Your task to perform on an android device: change timer sound Image 0: 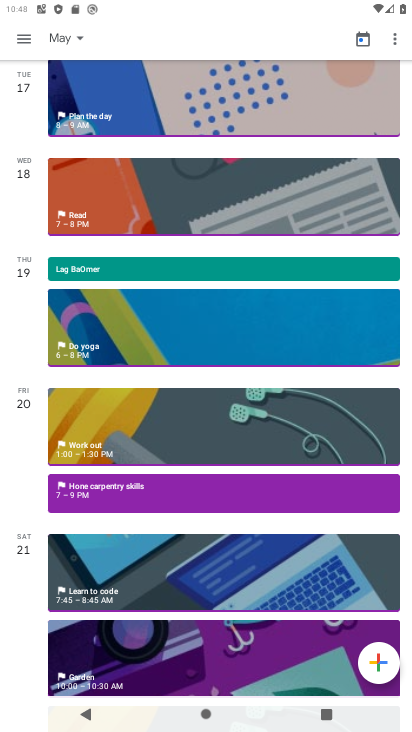
Step 0: press home button
Your task to perform on an android device: change timer sound Image 1: 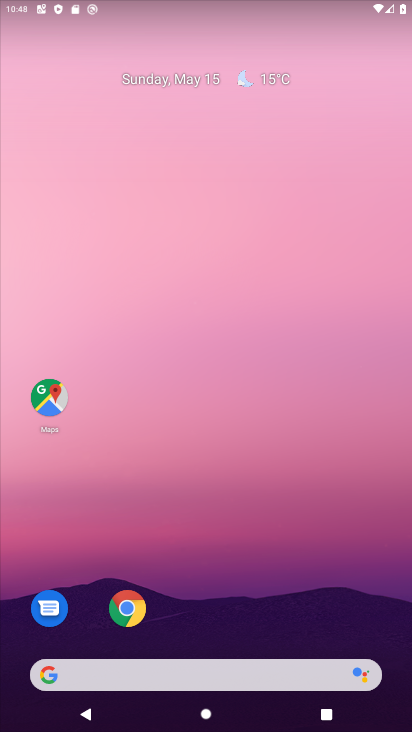
Step 1: drag from (202, 618) to (213, 167)
Your task to perform on an android device: change timer sound Image 2: 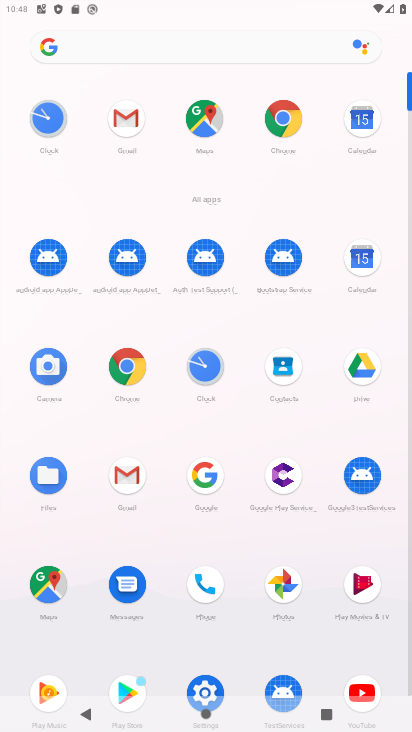
Step 2: click (209, 369)
Your task to perform on an android device: change timer sound Image 3: 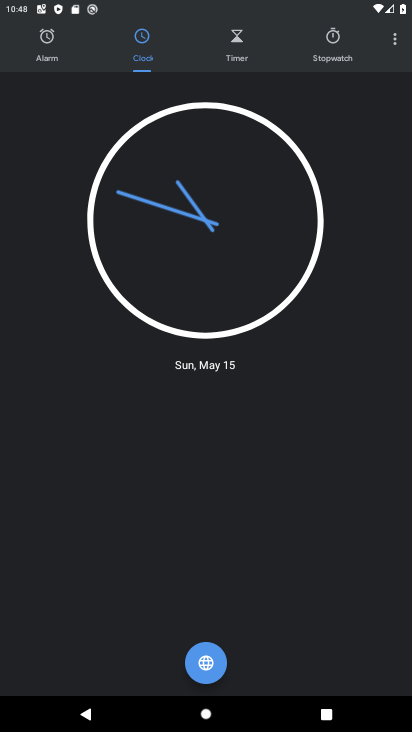
Step 3: click (398, 36)
Your task to perform on an android device: change timer sound Image 4: 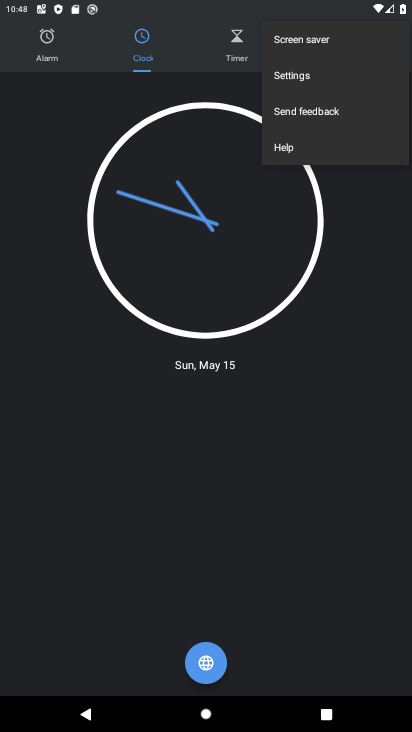
Step 4: click (337, 85)
Your task to perform on an android device: change timer sound Image 5: 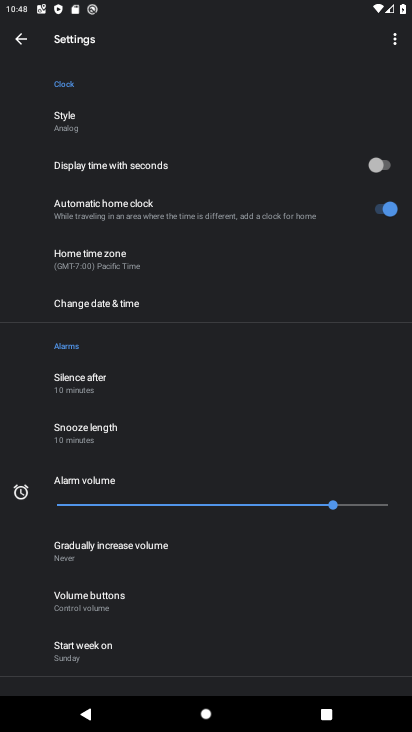
Step 5: drag from (145, 545) to (197, 156)
Your task to perform on an android device: change timer sound Image 6: 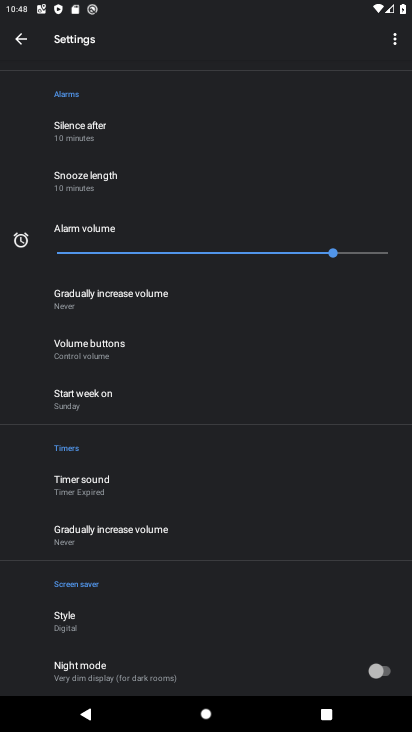
Step 6: click (70, 482)
Your task to perform on an android device: change timer sound Image 7: 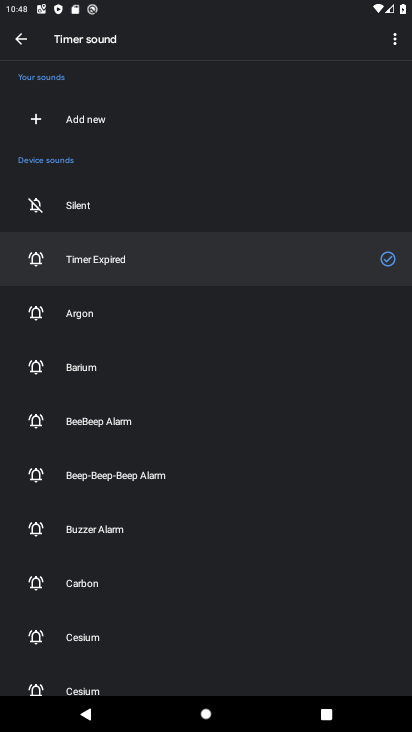
Step 7: click (78, 479)
Your task to perform on an android device: change timer sound Image 8: 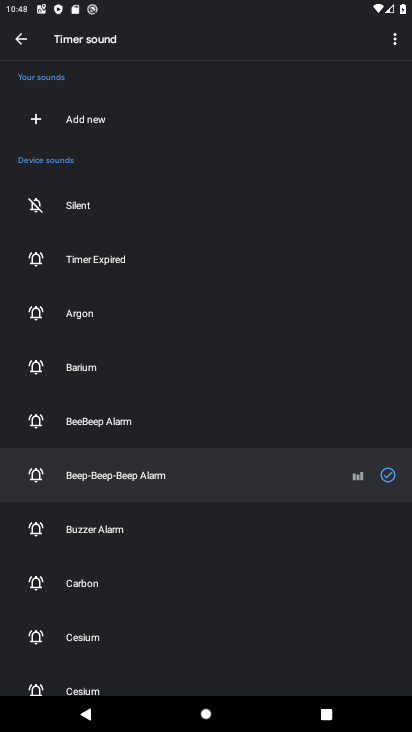
Step 8: task complete